Your task to perform on an android device: toggle notifications settings in the gmail app Image 0: 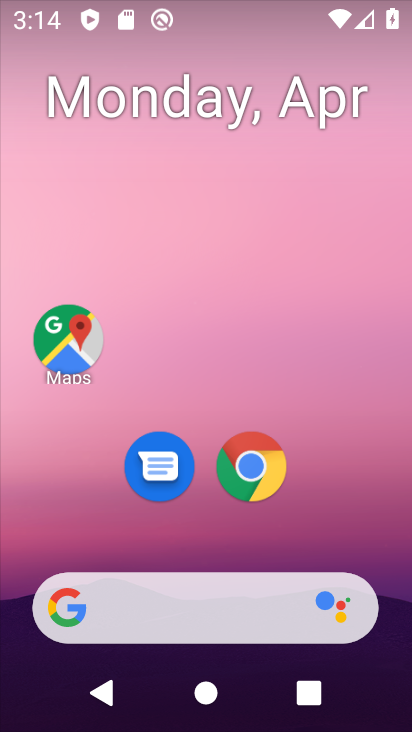
Step 0: drag from (353, 535) to (368, 171)
Your task to perform on an android device: toggle notifications settings in the gmail app Image 1: 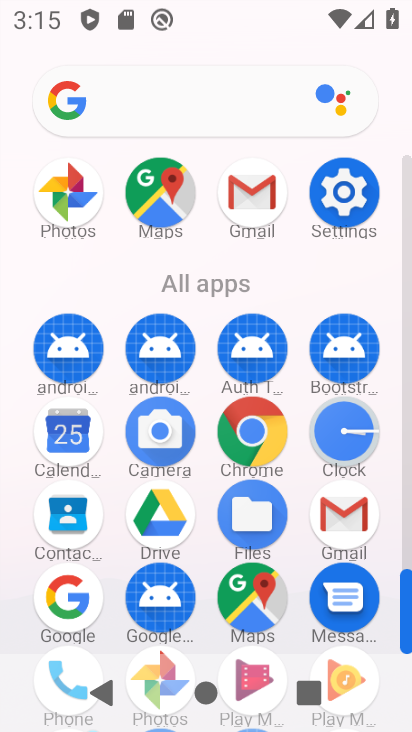
Step 1: click (330, 215)
Your task to perform on an android device: toggle notifications settings in the gmail app Image 2: 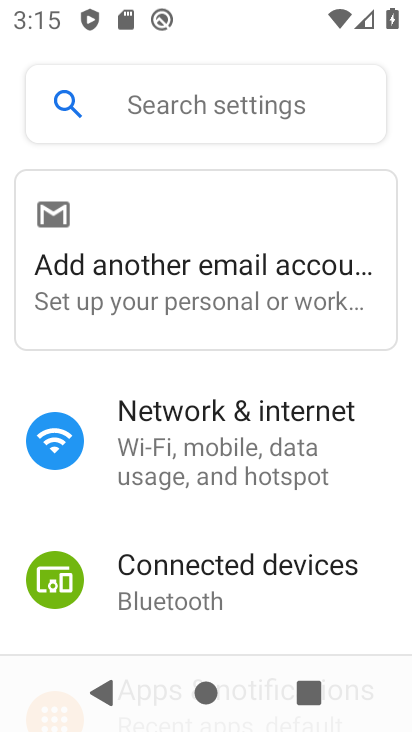
Step 2: click (223, 207)
Your task to perform on an android device: toggle notifications settings in the gmail app Image 3: 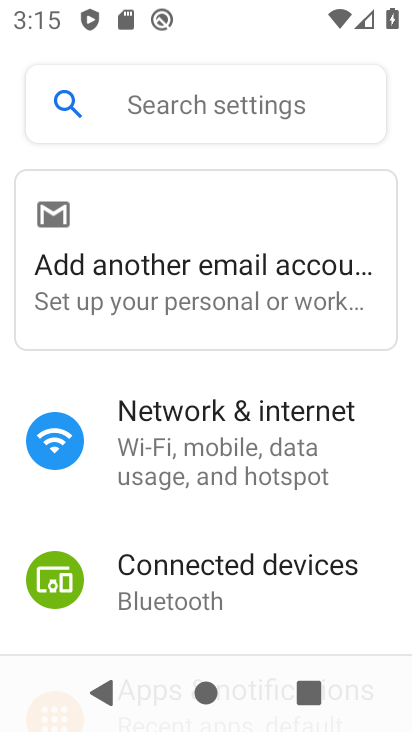
Step 3: press back button
Your task to perform on an android device: toggle notifications settings in the gmail app Image 4: 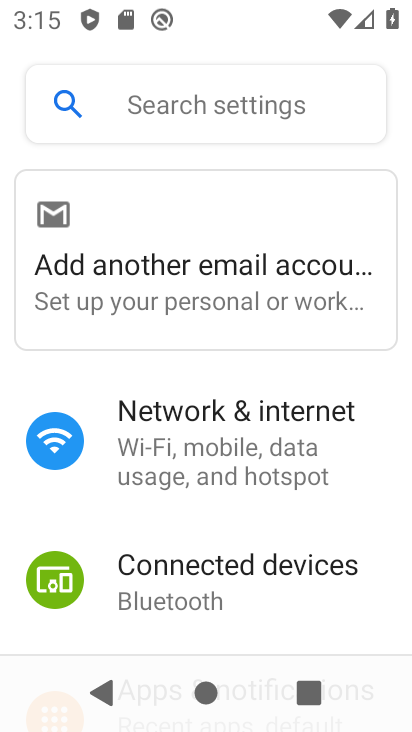
Step 4: press back button
Your task to perform on an android device: toggle notifications settings in the gmail app Image 5: 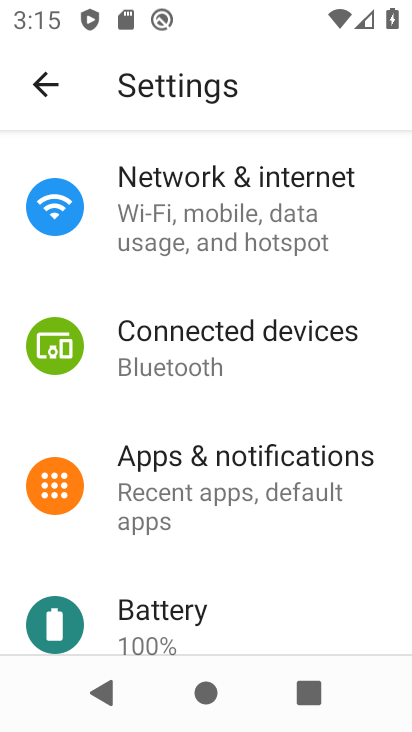
Step 5: press back button
Your task to perform on an android device: toggle notifications settings in the gmail app Image 6: 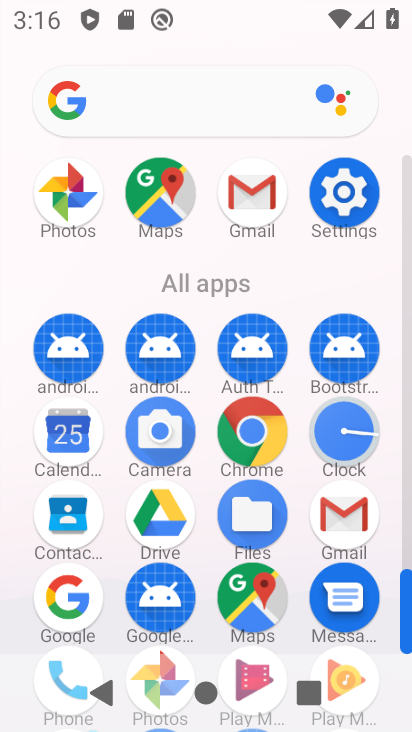
Step 6: click (245, 177)
Your task to perform on an android device: toggle notifications settings in the gmail app Image 7: 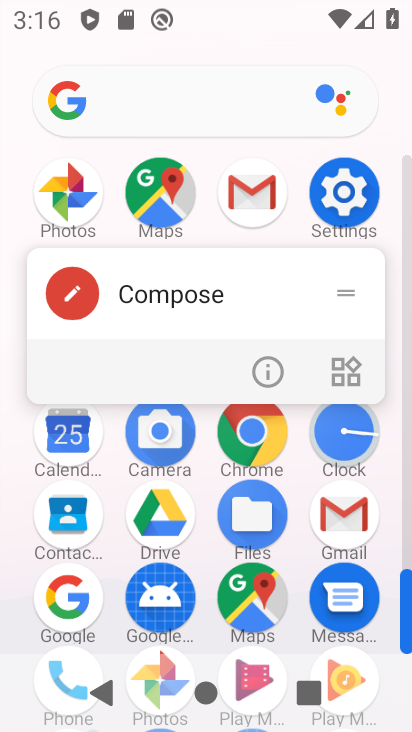
Step 7: click (259, 378)
Your task to perform on an android device: toggle notifications settings in the gmail app Image 8: 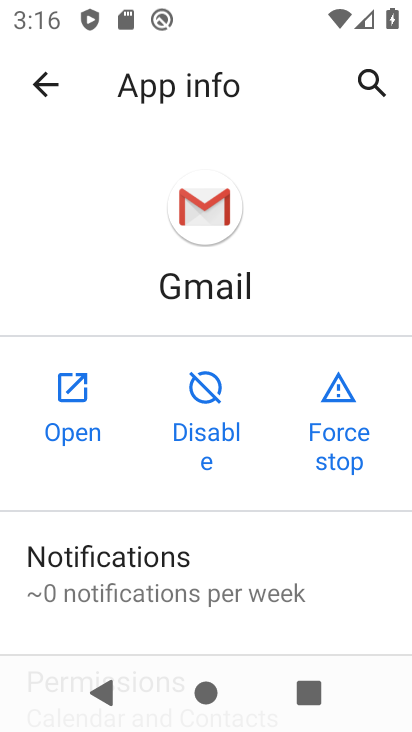
Step 8: click (171, 557)
Your task to perform on an android device: toggle notifications settings in the gmail app Image 9: 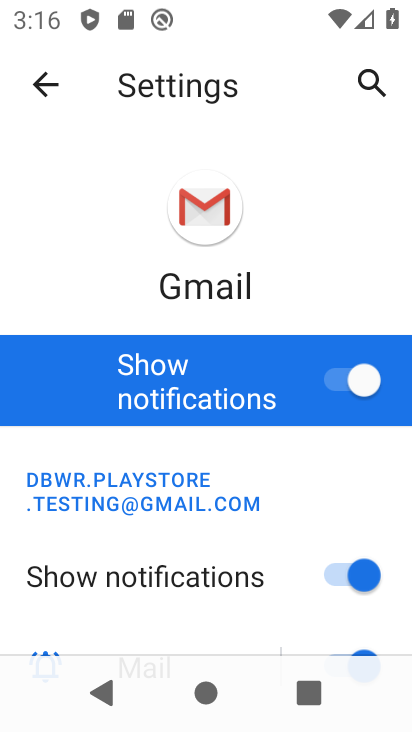
Step 9: drag from (145, 572) to (196, 335)
Your task to perform on an android device: toggle notifications settings in the gmail app Image 10: 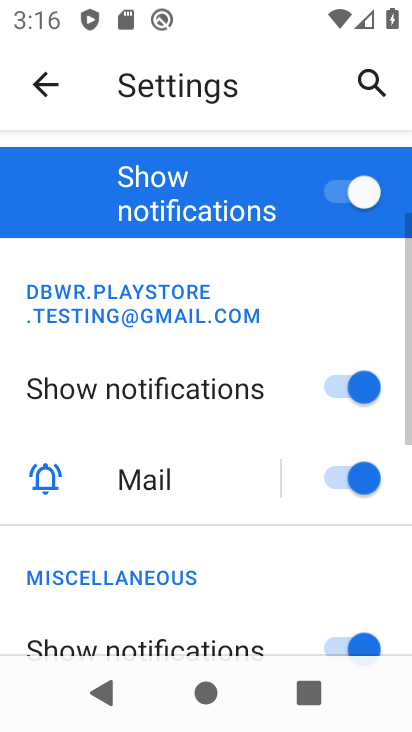
Step 10: drag from (229, 586) to (239, 516)
Your task to perform on an android device: toggle notifications settings in the gmail app Image 11: 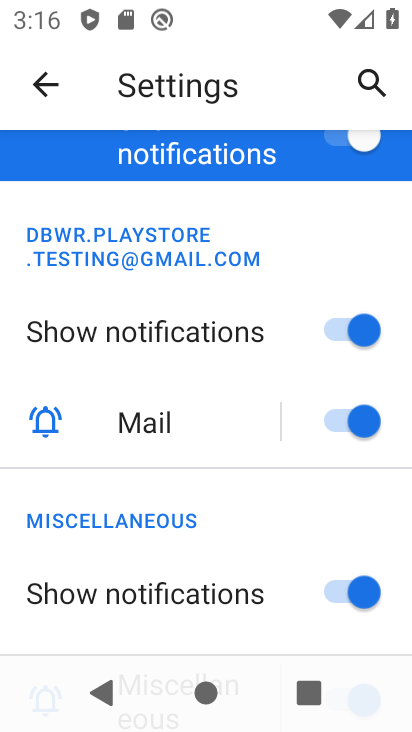
Step 11: click (365, 134)
Your task to perform on an android device: toggle notifications settings in the gmail app Image 12: 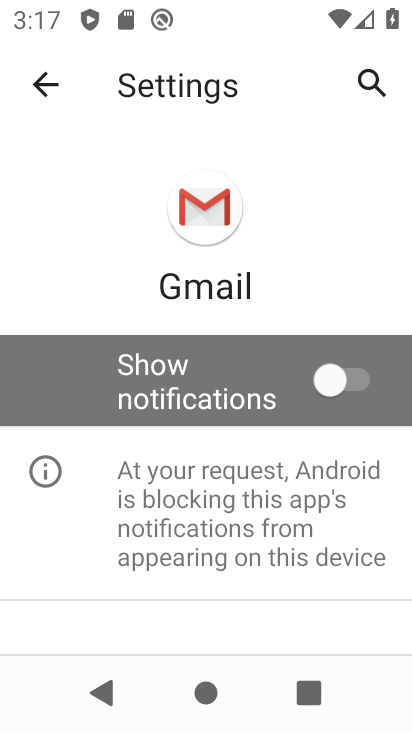
Step 12: task complete